Your task to perform on an android device: Open privacy settings Image 0: 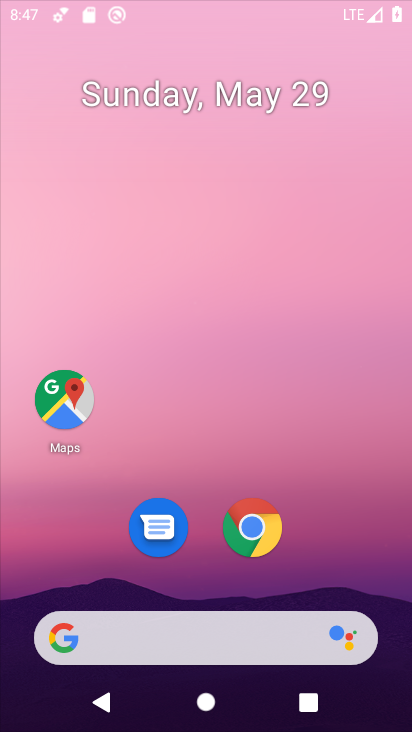
Step 0: press home button
Your task to perform on an android device: Open privacy settings Image 1: 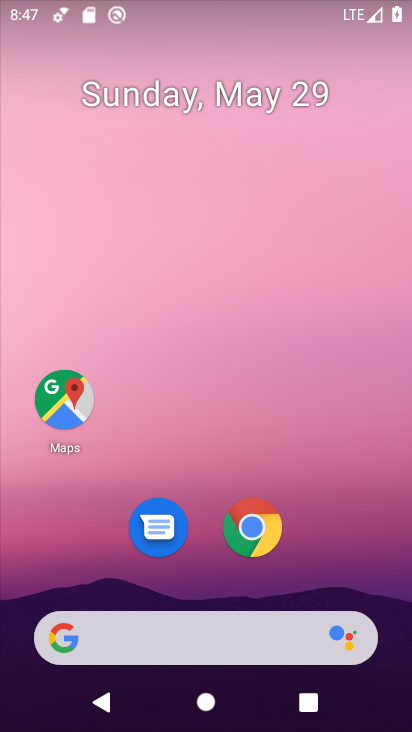
Step 1: drag from (207, 596) to (210, 70)
Your task to perform on an android device: Open privacy settings Image 2: 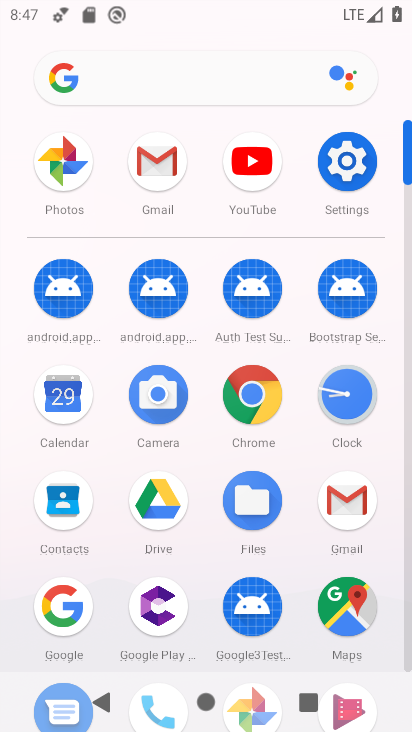
Step 2: click (343, 153)
Your task to perform on an android device: Open privacy settings Image 3: 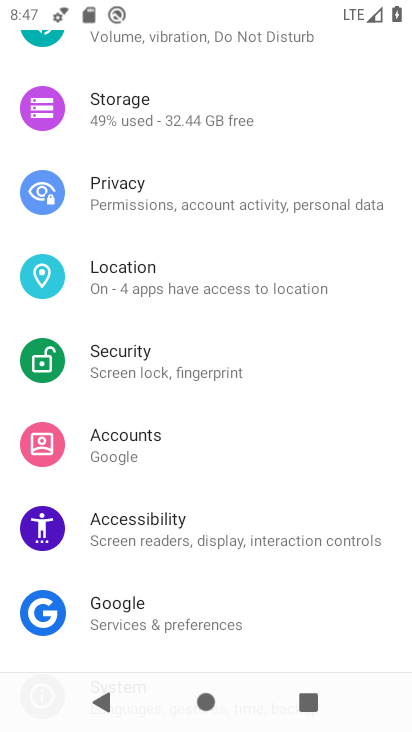
Step 3: click (168, 180)
Your task to perform on an android device: Open privacy settings Image 4: 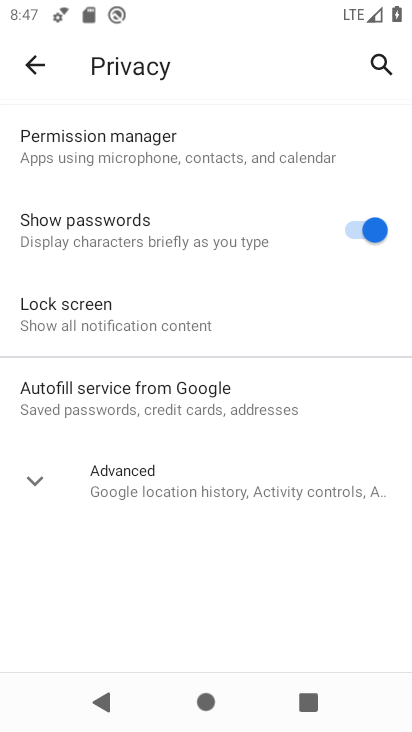
Step 4: click (32, 473)
Your task to perform on an android device: Open privacy settings Image 5: 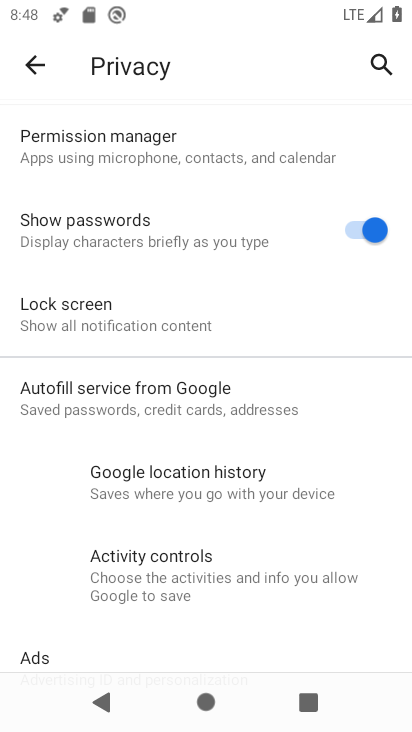
Step 5: task complete